Your task to perform on an android device: turn notification dots on Image 0: 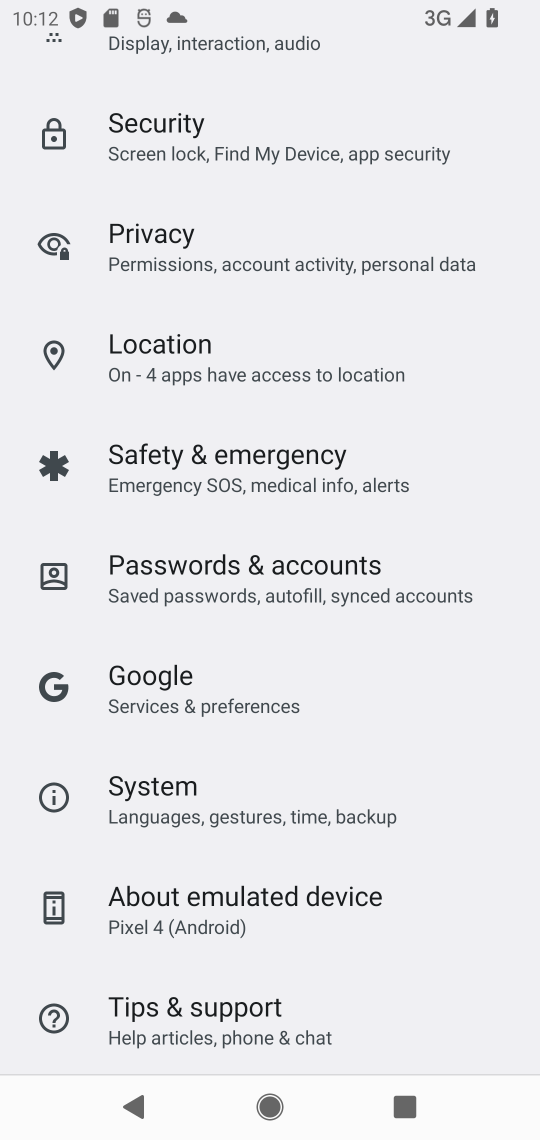
Step 0: press home button
Your task to perform on an android device: turn notification dots on Image 1: 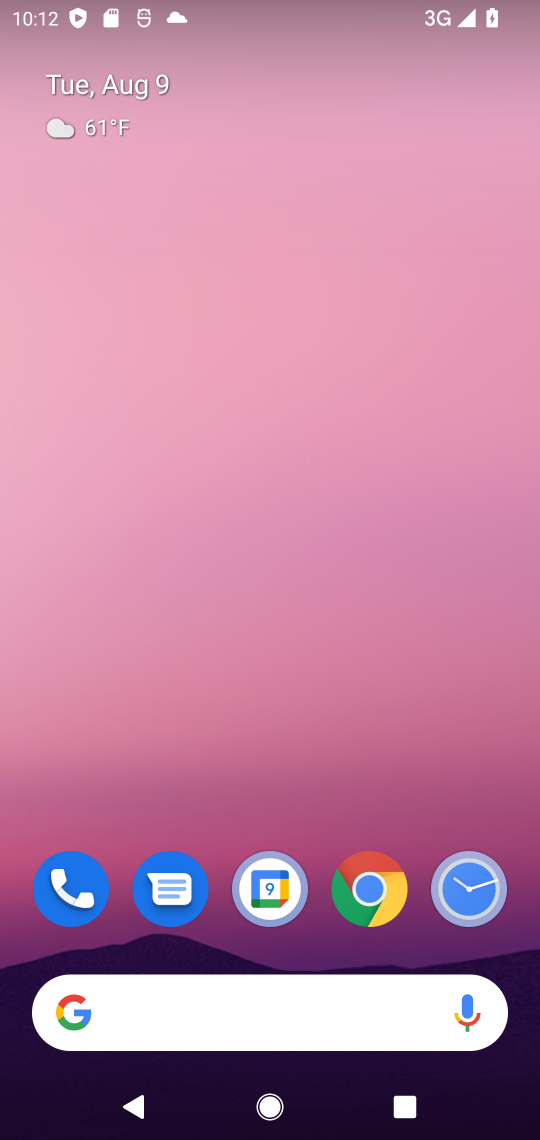
Step 1: drag from (288, 802) to (309, 144)
Your task to perform on an android device: turn notification dots on Image 2: 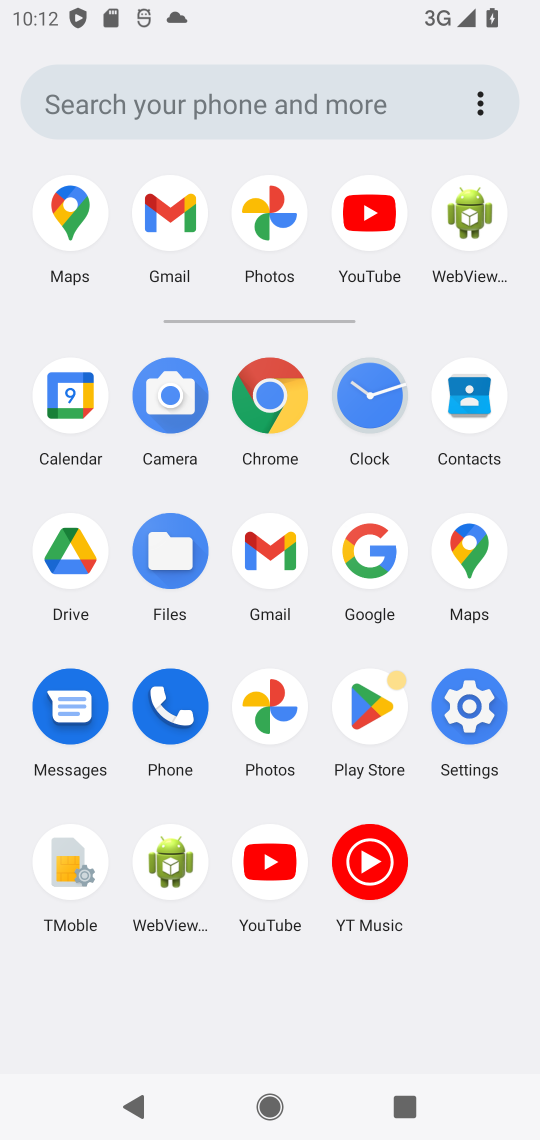
Step 2: click (459, 724)
Your task to perform on an android device: turn notification dots on Image 3: 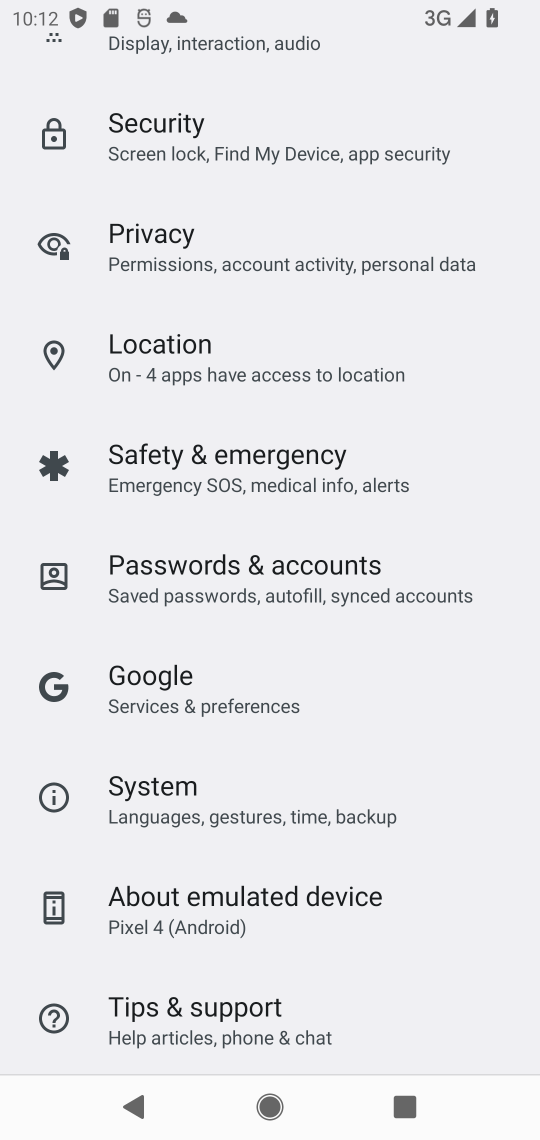
Step 3: drag from (282, 266) to (281, 894)
Your task to perform on an android device: turn notification dots on Image 4: 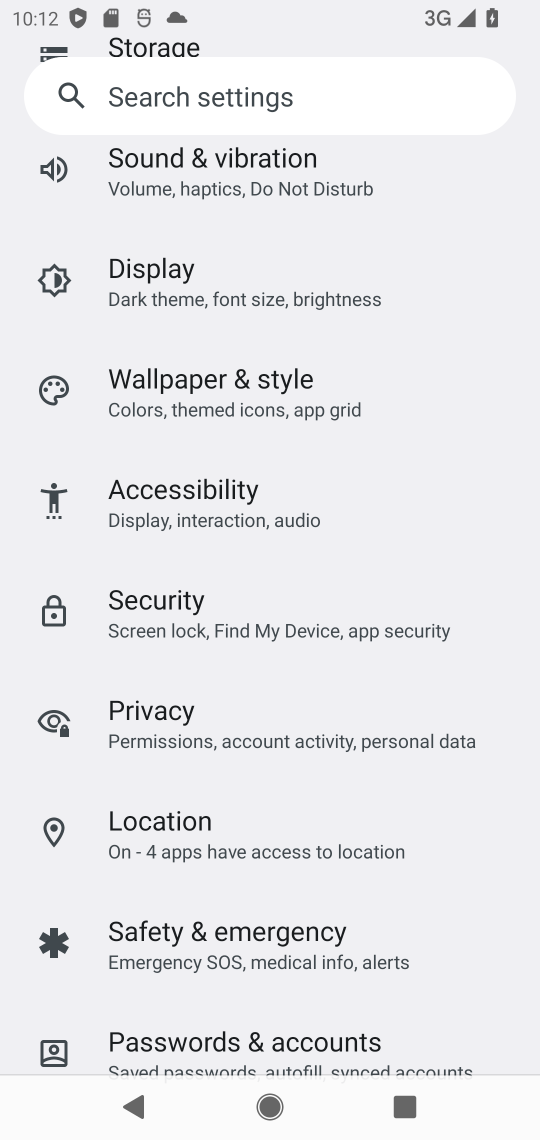
Step 4: drag from (256, 379) to (306, 910)
Your task to perform on an android device: turn notification dots on Image 5: 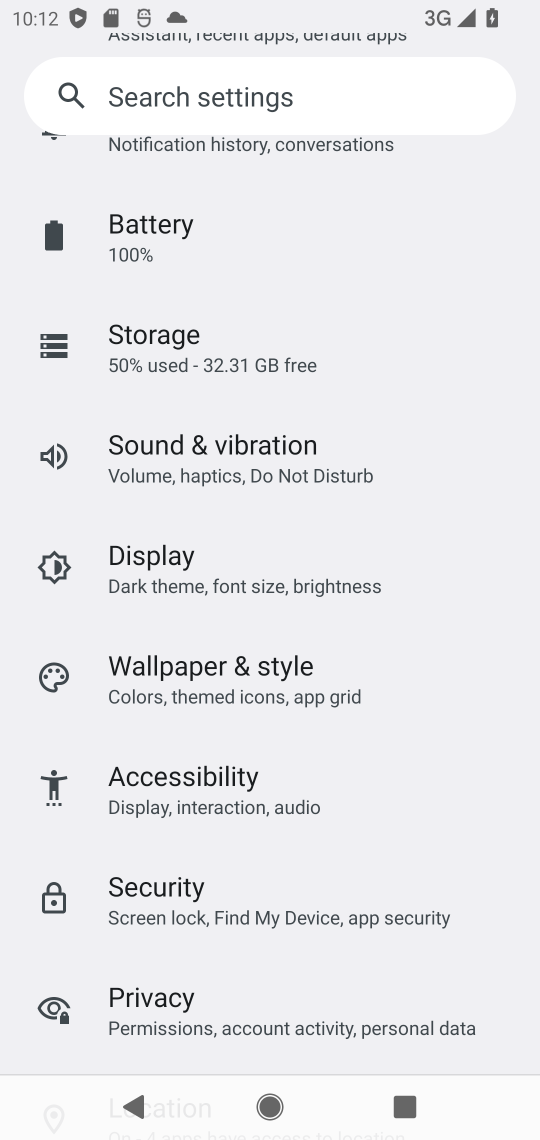
Step 5: drag from (341, 191) to (329, 812)
Your task to perform on an android device: turn notification dots on Image 6: 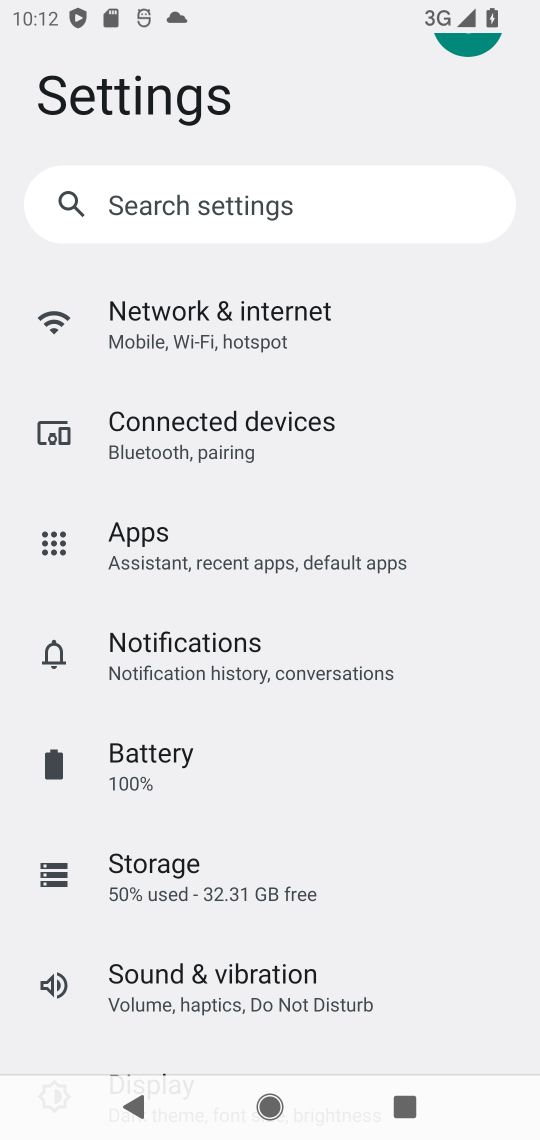
Step 6: click (226, 339)
Your task to perform on an android device: turn notification dots on Image 7: 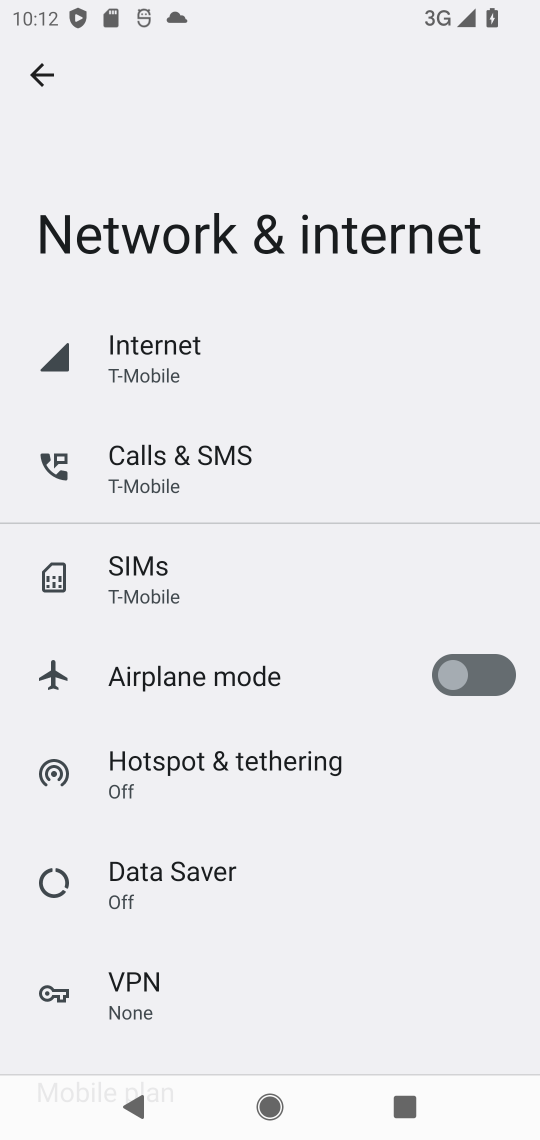
Step 7: drag from (258, 841) to (325, 248)
Your task to perform on an android device: turn notification dots on Image 8: 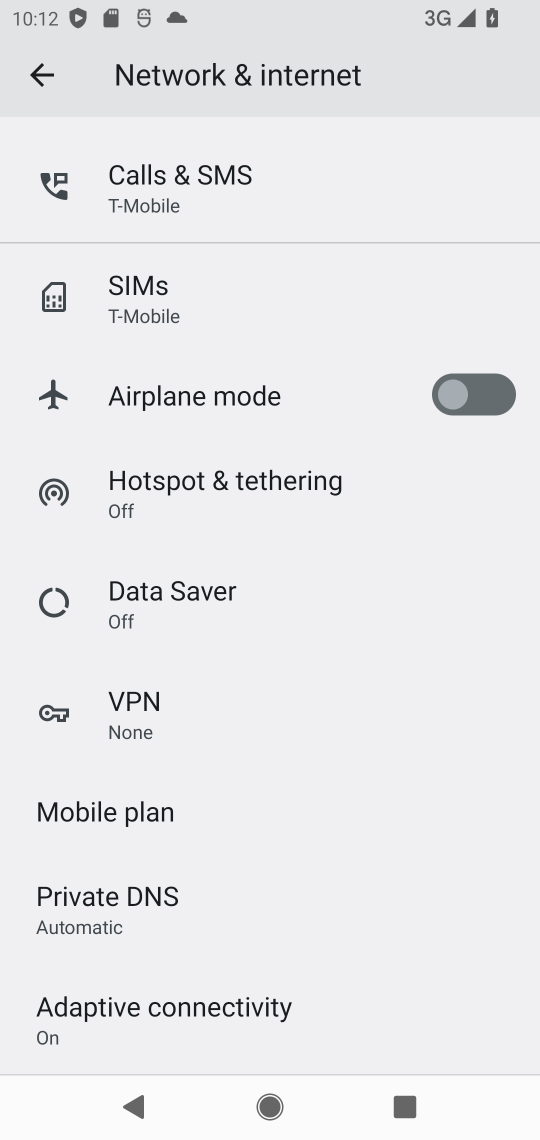
Step 8: drag from (290, 852) to (257, 312)
Your task to perform on an android device: turn notification dots on Image 9: 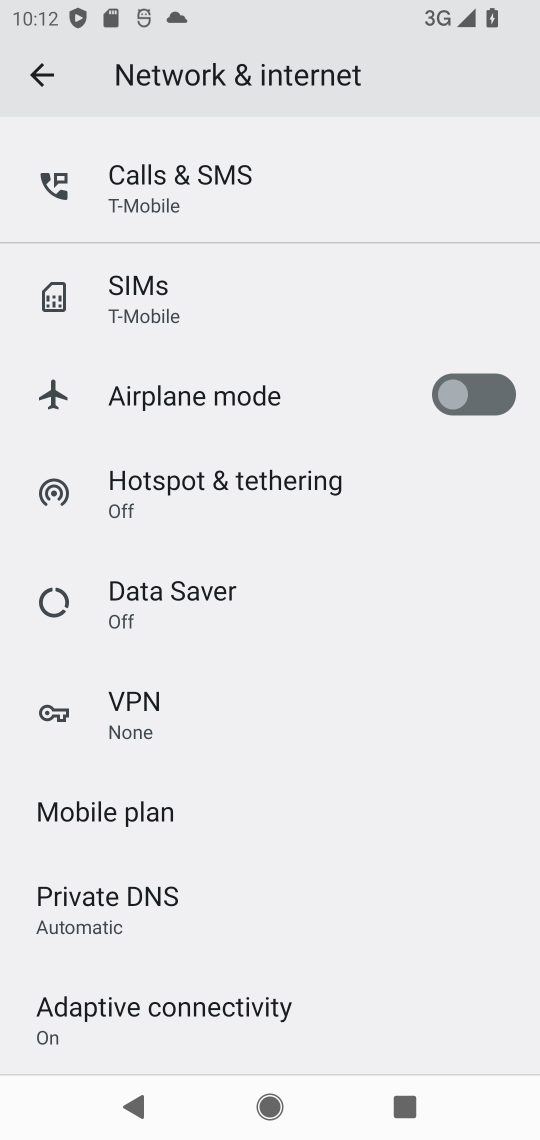
Step 9: drag from (280, 500) to (173, 1000)
Your task to perform on an android device: turn notification dots on Image 10: 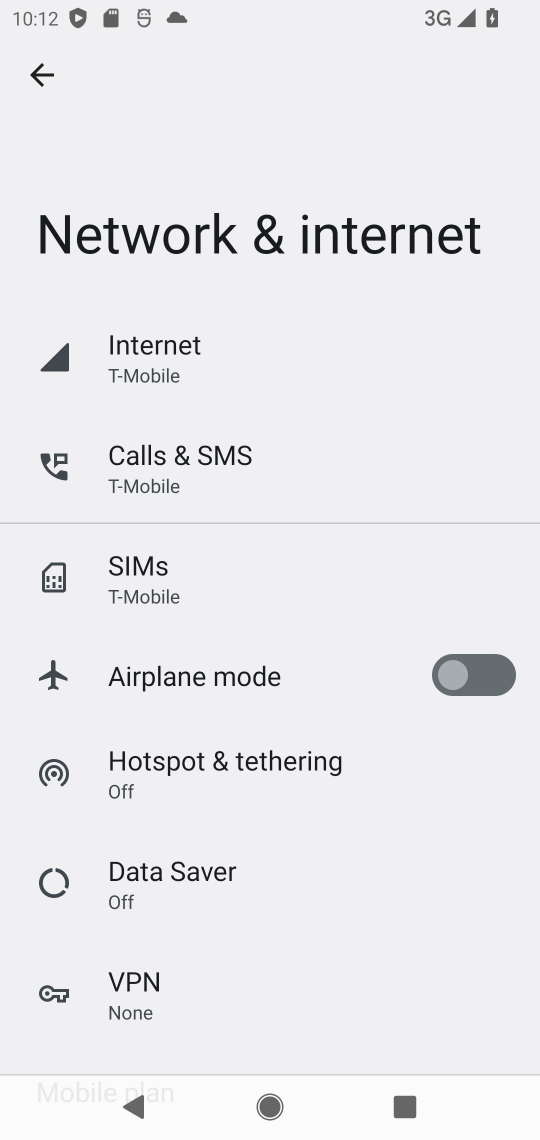
Step 10: click (22, 64)
Your task to perform on an android device: turn notification dots on Image 11: 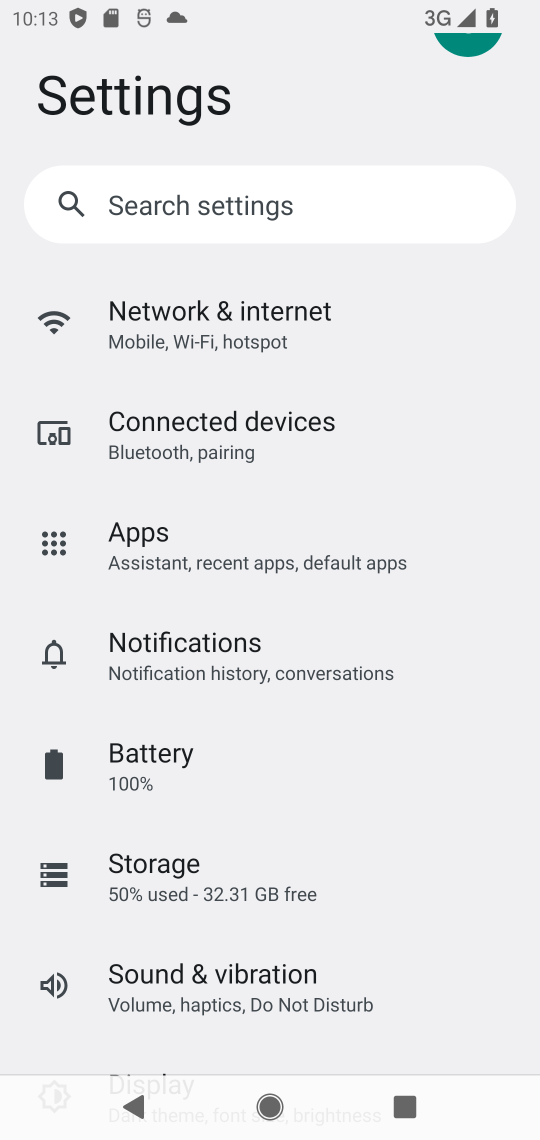
Step 11: drag from (265, 909) to (233, 372)
Your task to perform on an android device: turn notification dots on Image 12: 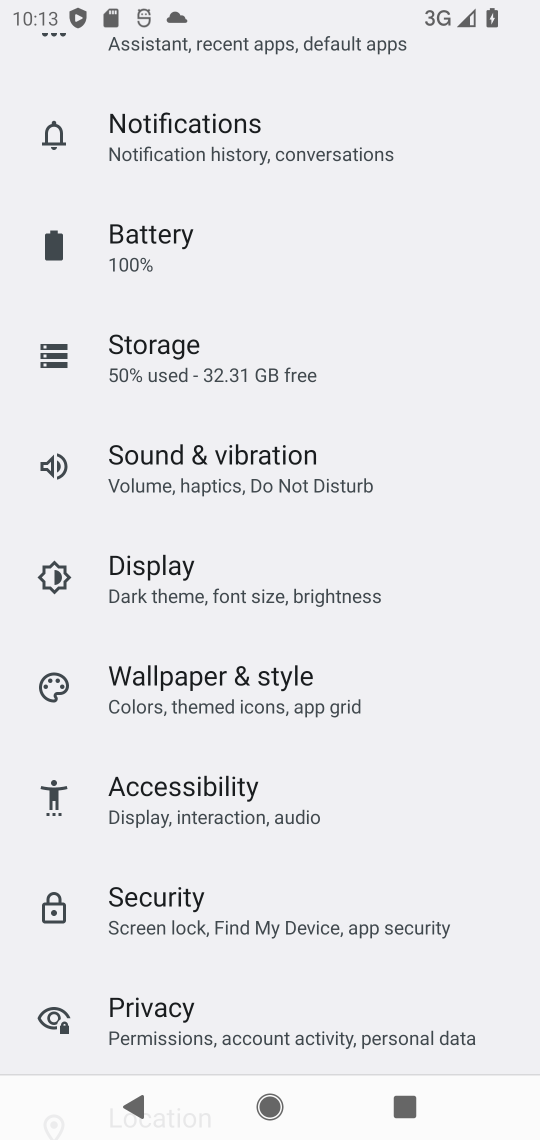
Step 12: drag from (233, 369) to (176, 748)
Your task to perform on an android device: turn notification dots on Image 13: 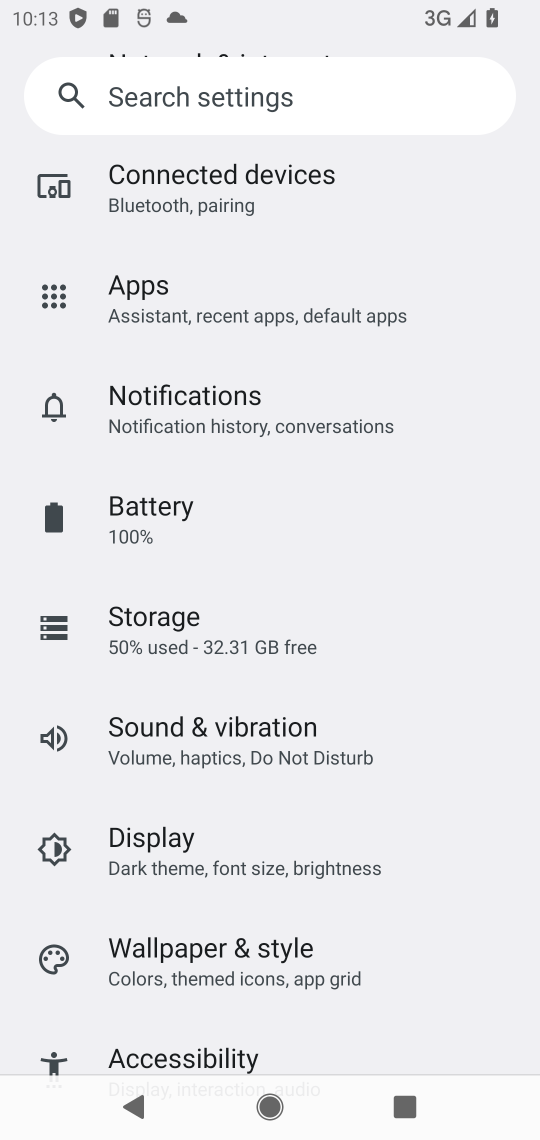
Step 13: click (175, 427)
Your task to perform on an android device: turn notification dots on Image 14: 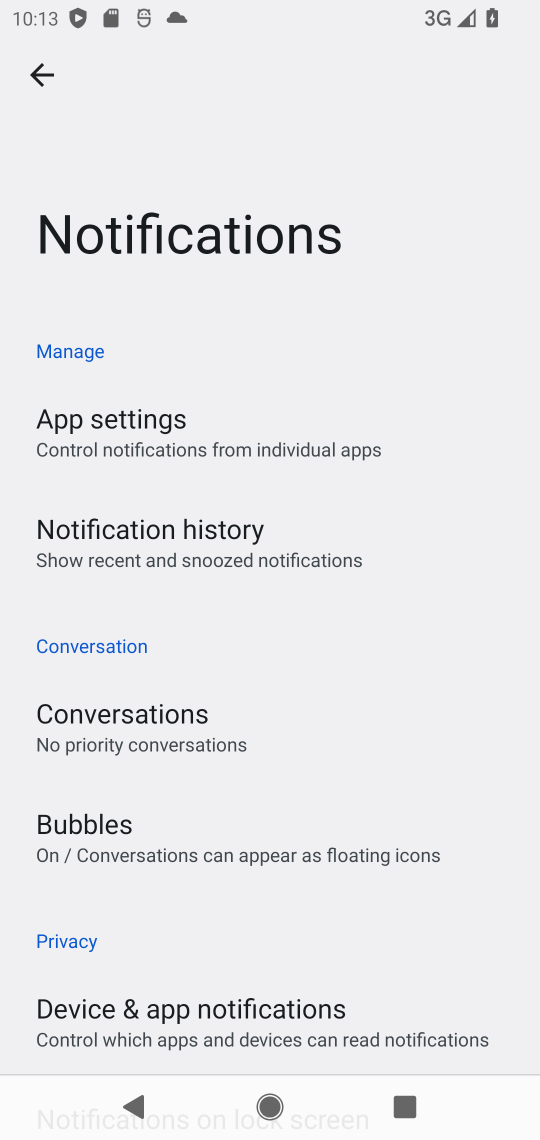
Step 14: task complete